Your task to perform on an android device: Open the calendar and show me this week's events Image 0: 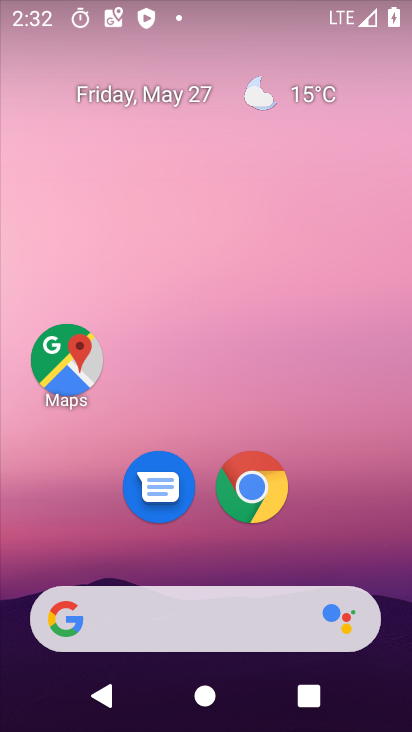
Step 0: drag from (341, 511) to (313, 105)
Your task to perform on an android device: Open the calendar and show me this week's events Image 1: 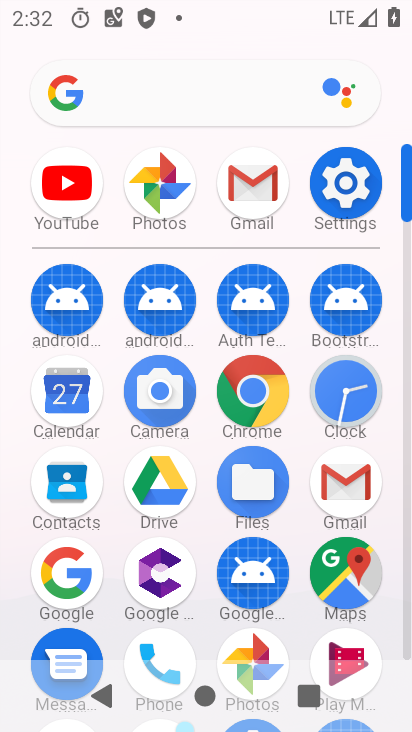
Step 1: click (74, 393)
Your task to perform on an android device: Open the calendar and show me this week's events Image 2: 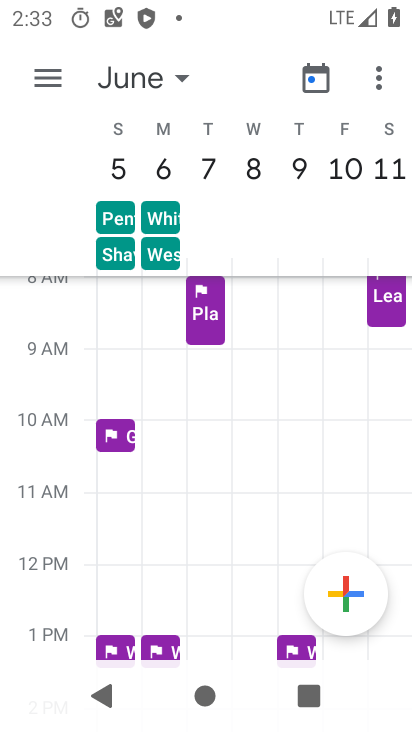
Step 2: click (122, 79)
Your task to perform on an android device: Open the calendar and show me this week's events Image 3: 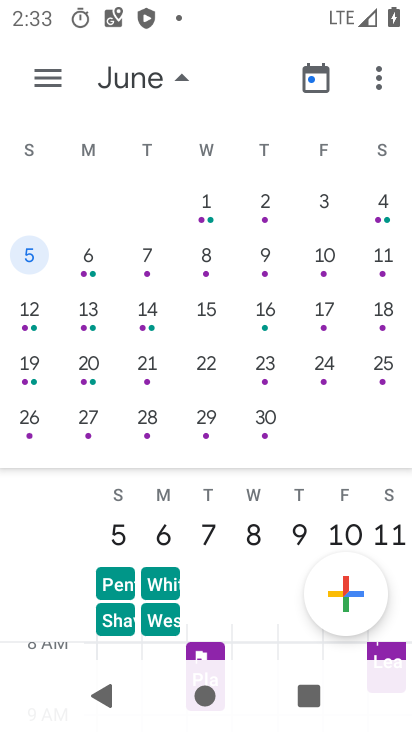
Step 3: drag from (42, 345) to (405, 339)
Your task to perform on an android device: Open the calendar and show me this week's events Image 4: 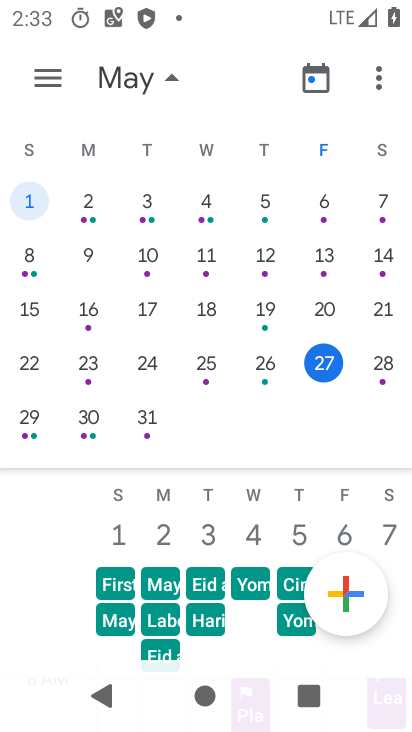
Step 4: click (260, 363)
Your task to perform on an android device: Open the calendar and show me this week's events Image 5: 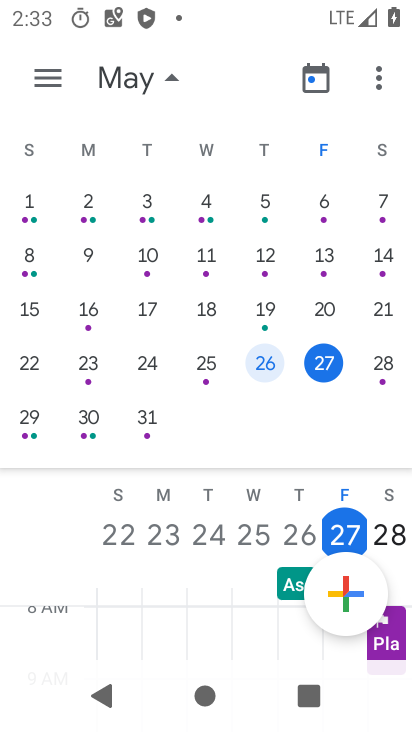
Step 5: click (309, 356)
Your task to perform on an android device: Open the calendar and show me this week's events Image 6: 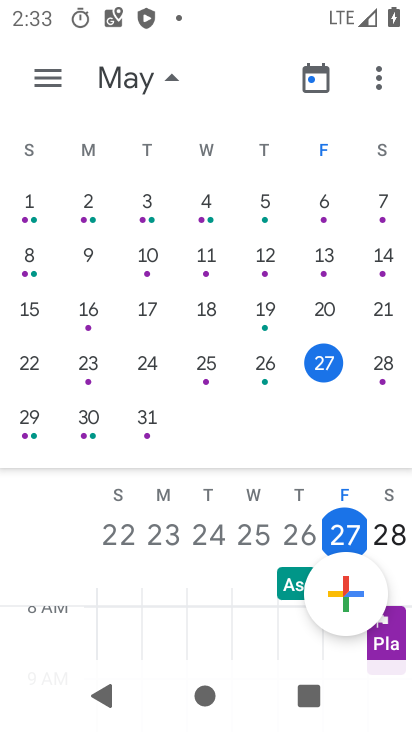
Step 6: task complete